Your task to perform on an android device: Open Yahoo.com Image 0: 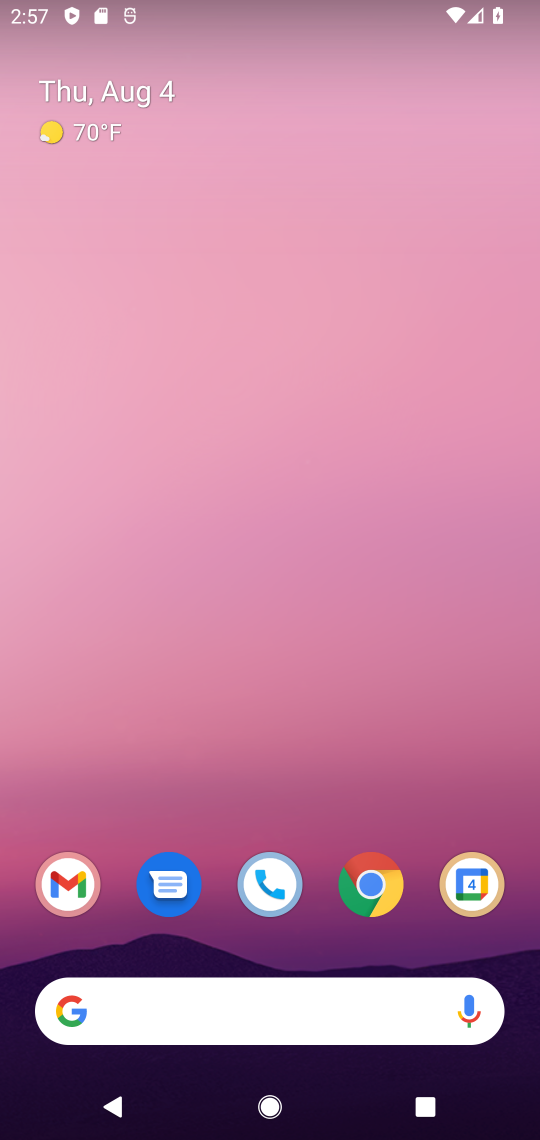
Step 0: drag from (267, 585) to (256, 365)
Your task to perform on an android device: Open Yahoo.com Image 1: 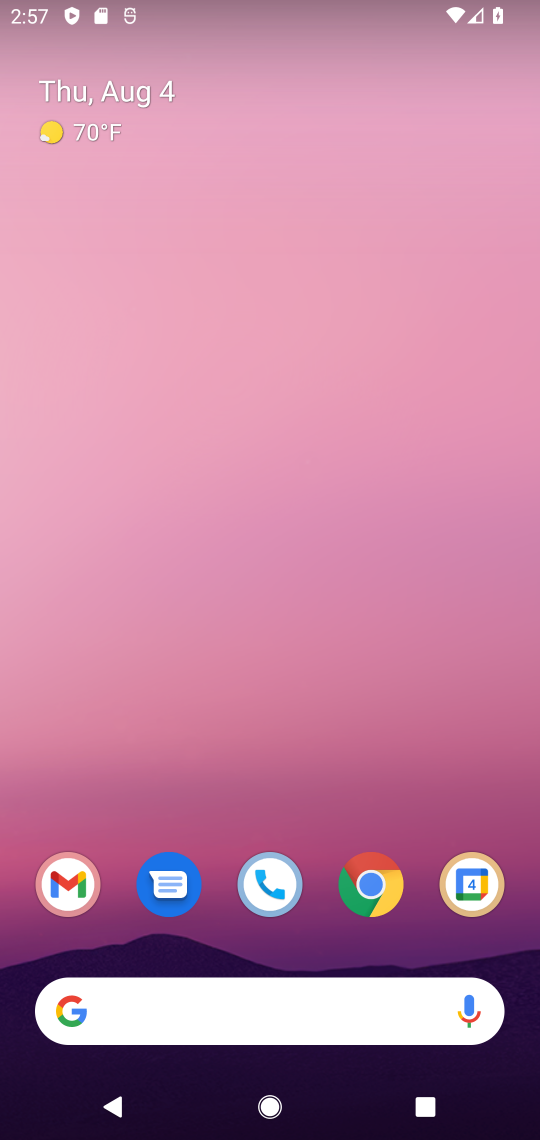
Step 1: drag from (262, 1039) to (273, 215)
Your task to perform on an android device: Open Yahoo.com Image 2: 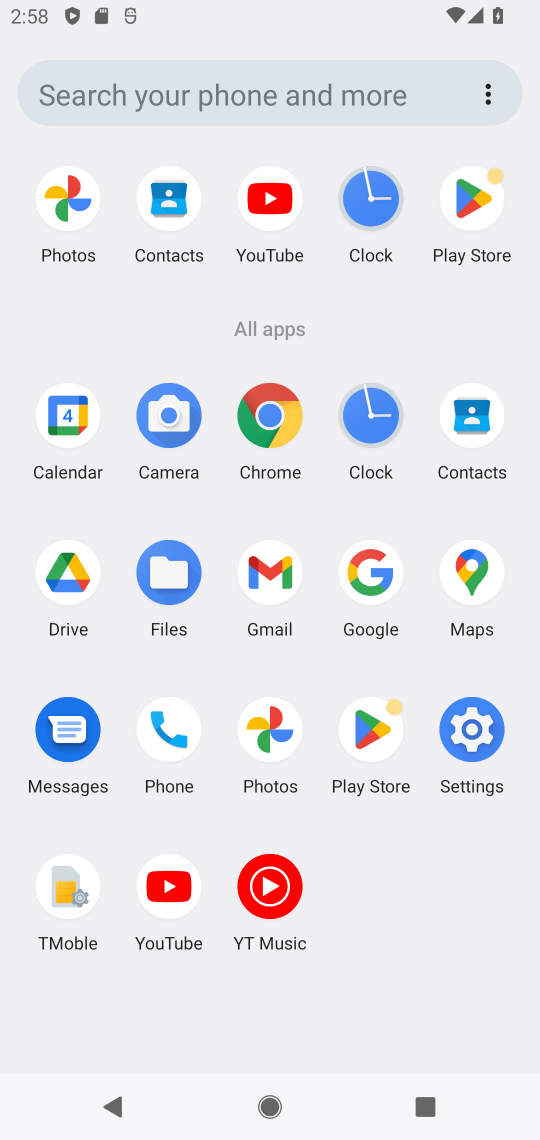
Step 2: click (263, 434)
Your task to perform on an android device: Open Yahoo.com Image 3: 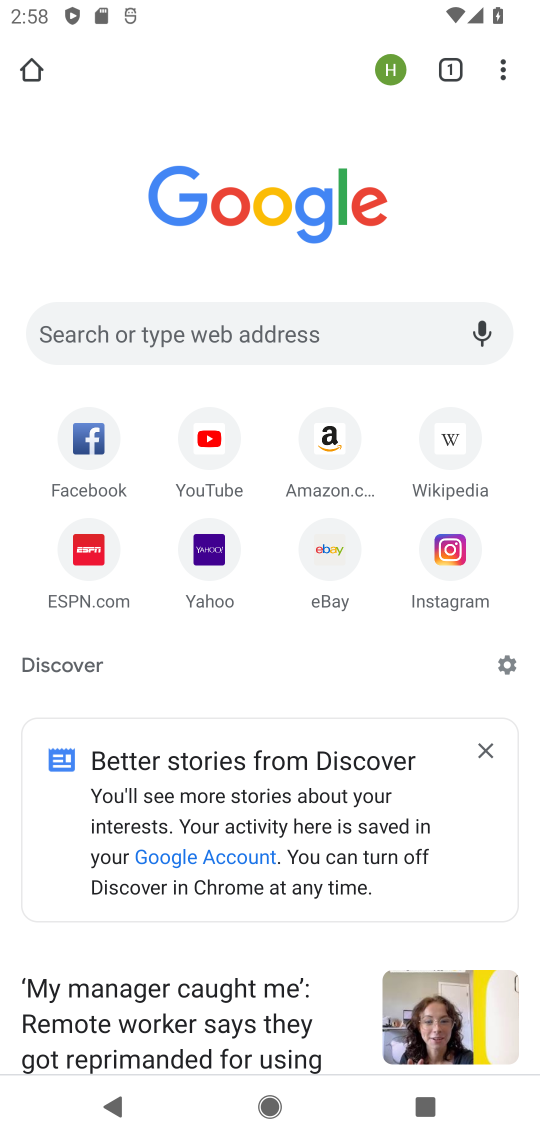
Step 3: click (215, 523)
Your task to perform on an android device: Open Yahoo.com Image 4: 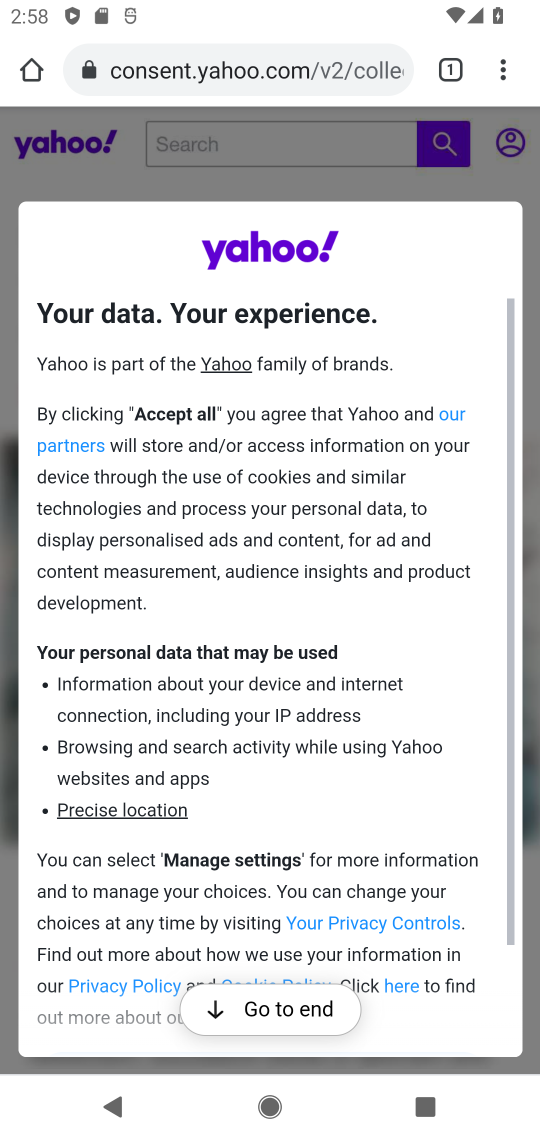
Step 4: task complete